Your task to perform on an android device: Open notification settings Image 0: 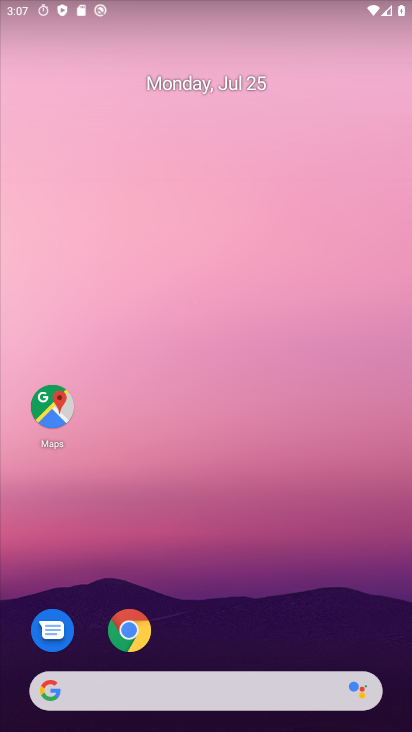
Step 0: drag from (224, 370) to (224, 131)
Your task to perform on an android device: Open notification settings Image 1: 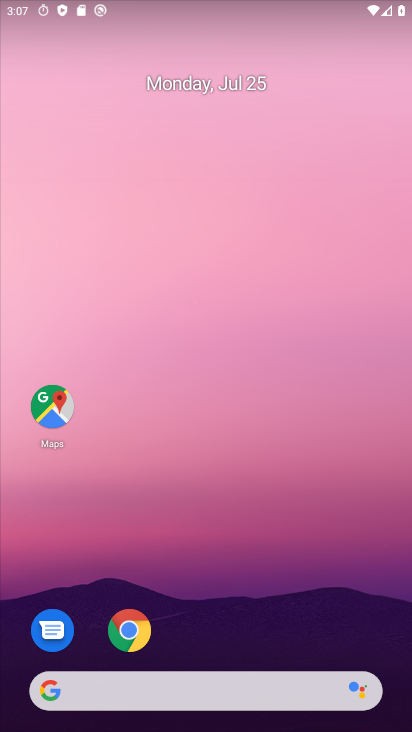
Step 1: drag from (249, 656) to (222, 259)
Your task to perform on an android device: Open notification settings Image 2: 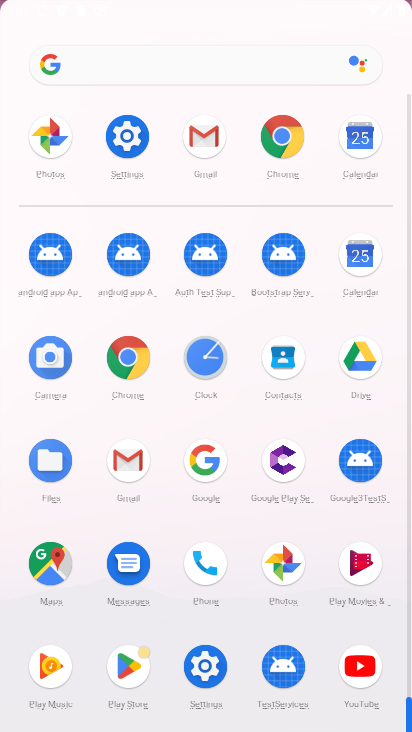
Step 2: drag from (187, 537) to (131, 111)
Your task to perform on an android device: Open notification settings Image 3: 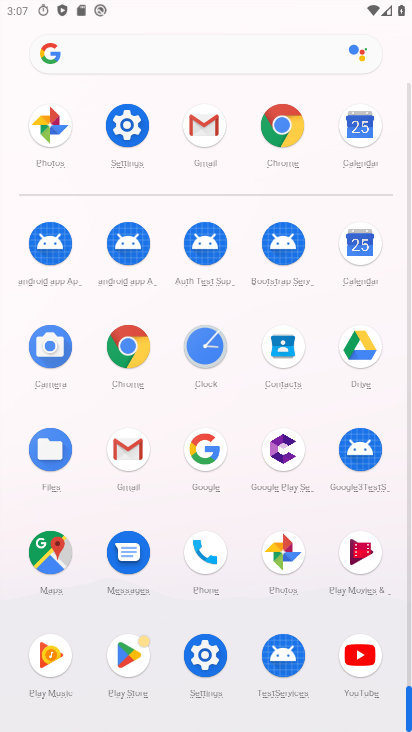
Step 3: click (210, 655)
Your task to perform on an android device: Open notification settings Image 4: 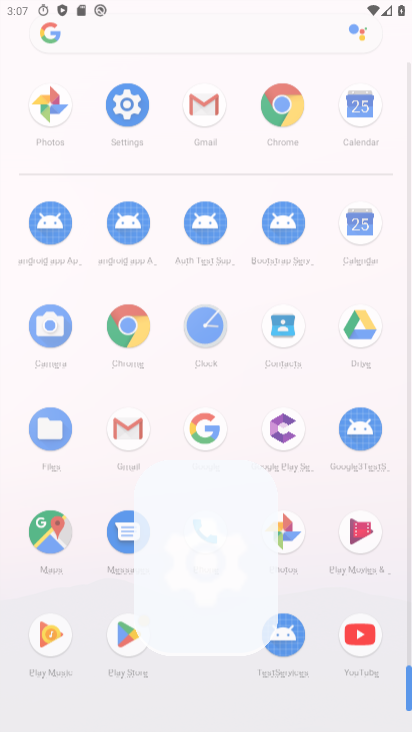
Step 4: click (211, 658)
Your task to perform on an android device: Open notification settings Image 5: 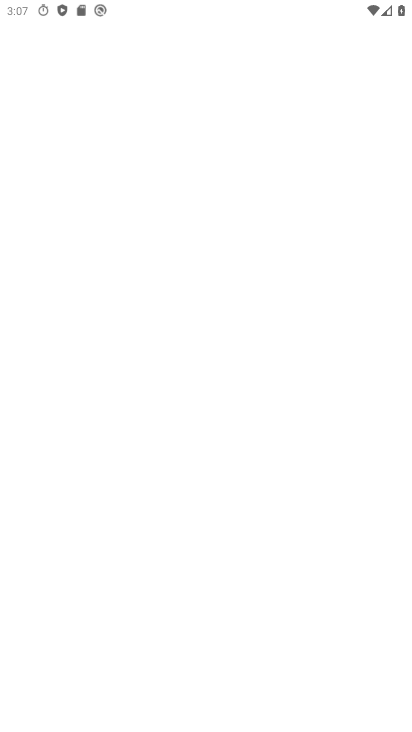
Step 5: click (211, 656)
Your task to perform on an android device: Open notification settings Image 6: 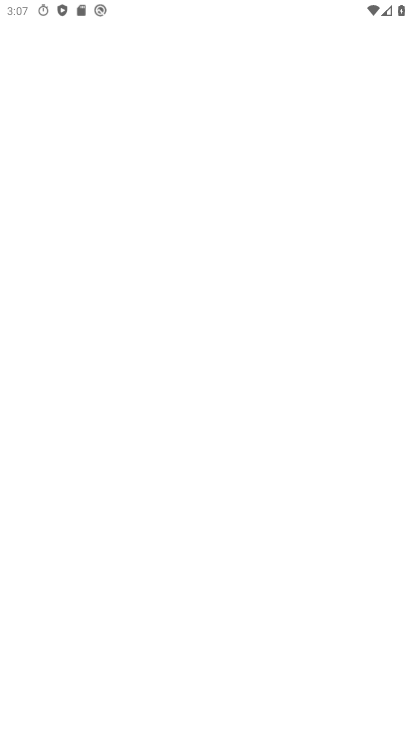
Step 6: click (212, 649)
Your task to perform on an android device: Open notification settings Image 7: 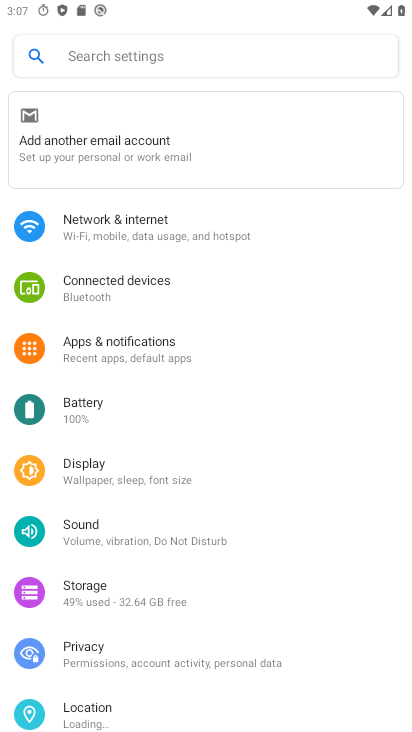
Step 7: click (126, 347)
Your task to perform on an android device: Open notification settings Image 8: 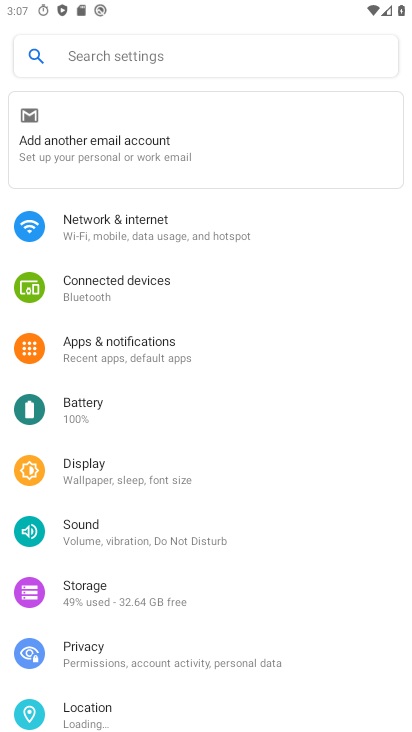
Step 8: click (136, 347)
Your task to perform on an android device: Open notification settings Image 9: 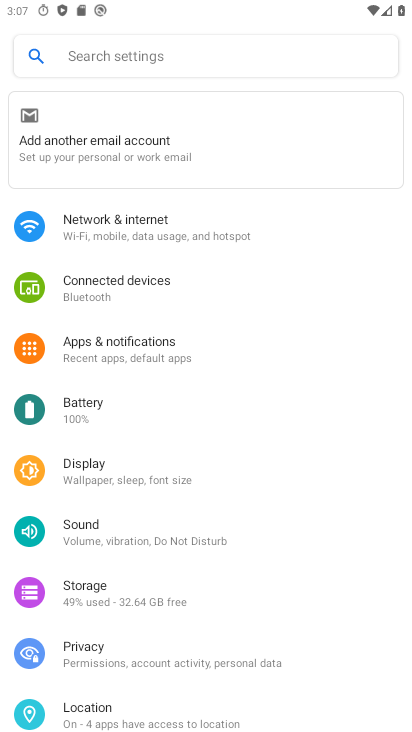
Step 9: click (156, 336)
Your task to perform on an android device: Open notification settings Image 10: 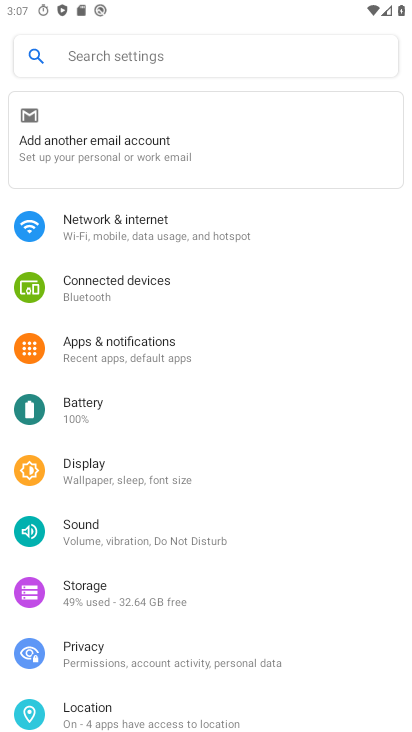
Step 10: click (156, 336)
Your task to perform on an android device: Open notification settings Image 11: 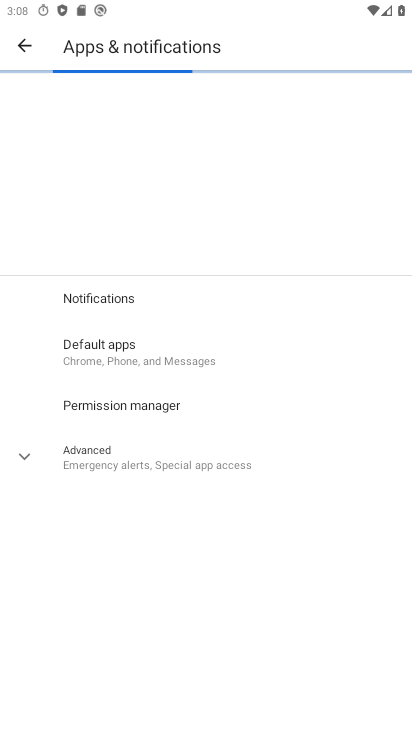
Step 11: task complete